Your task to perform on an android device: Open the map Image 0: 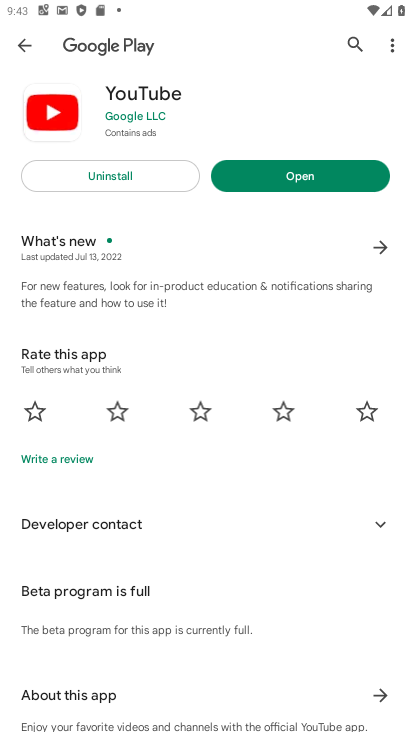
Step 0: press home button
Your task to perform on an android device: Open the map Image 1: 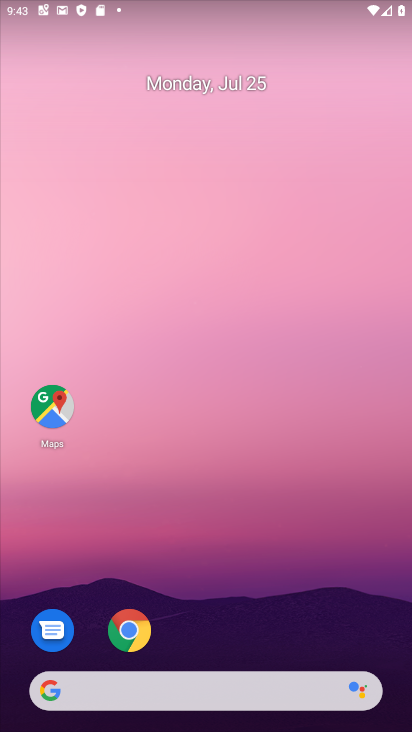
Step 1: click (46, 399)
Your task to perform on an android device: Open the map Image 2: 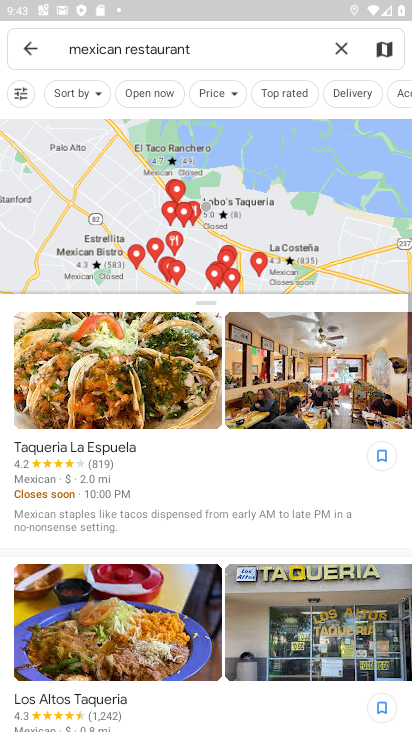
Step 2: click (34, 44)
Your task to perform on an android device: Open the map Image 3: 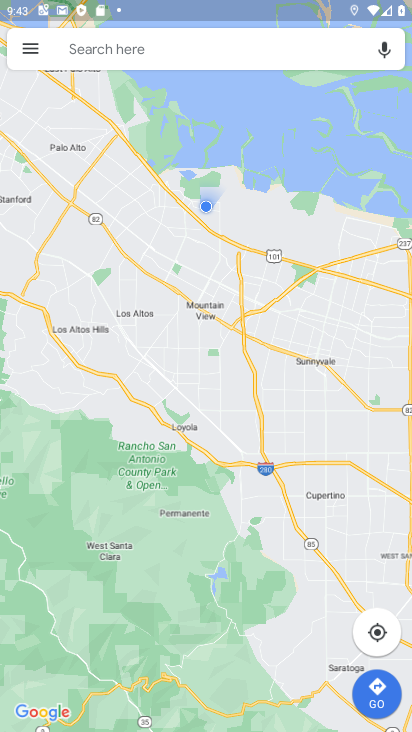
Step 3: task complete